Your task to perform on an android device: change the clock style Image 0: 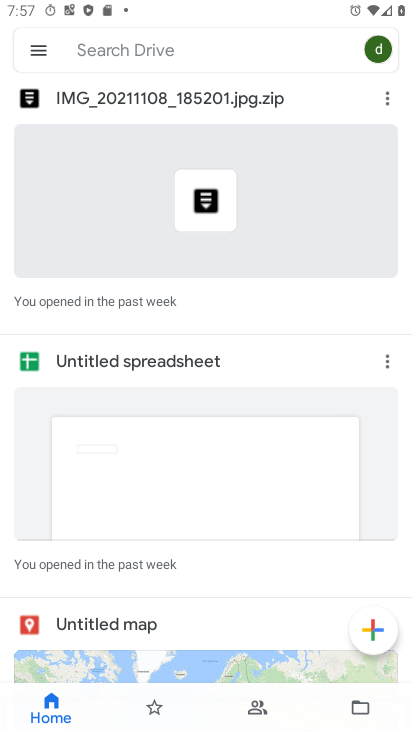
Step 0: press home button
Your task to perform on an android device: change the clock style Image 1: 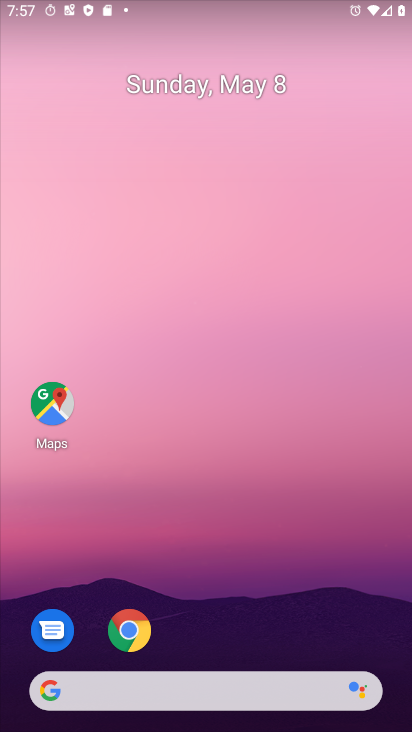
Step 1: drag from (231, 664) to (349, 10)
Your task to perform on an android device: change the clock style Image 2: 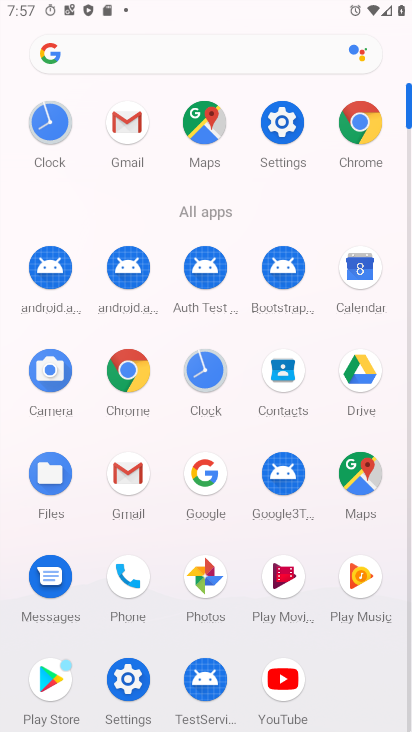
Step 2: click (195, 380)
Your task to perform on an android device: change the clock style Image 3: 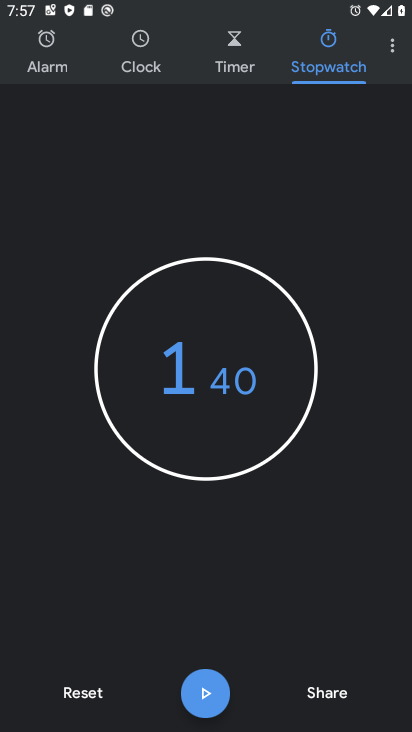
Step 3: click (391, 56)
Your task to perform on an android device: change the clock style Image 4: 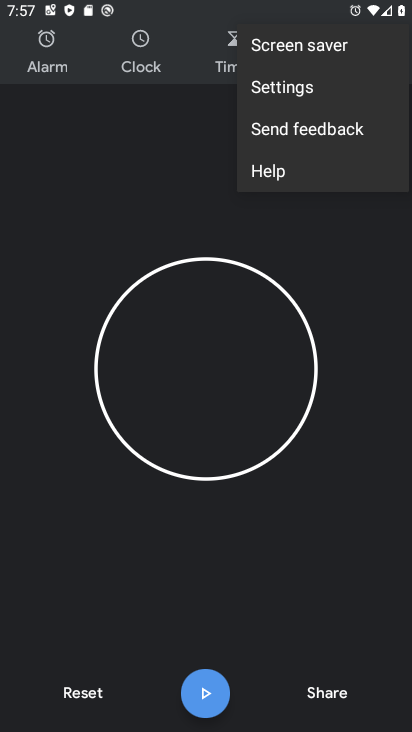
Step 4: click (282, 90)
Your task to perform on an android device: change the clock style Image 5: 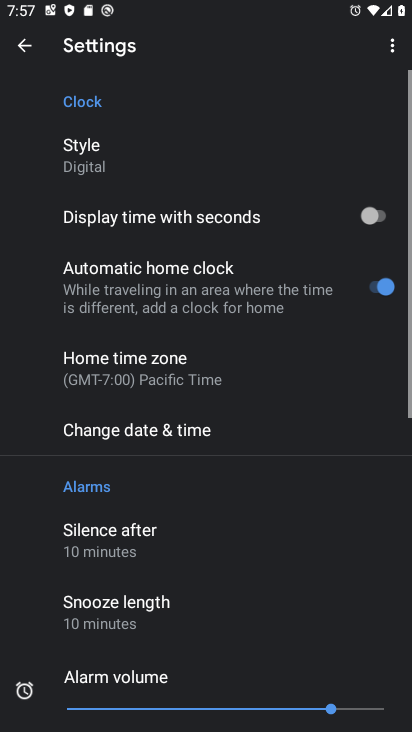
Step 5: click (89, 153)
Your task to perform on an android device: change the clock style Image 6: 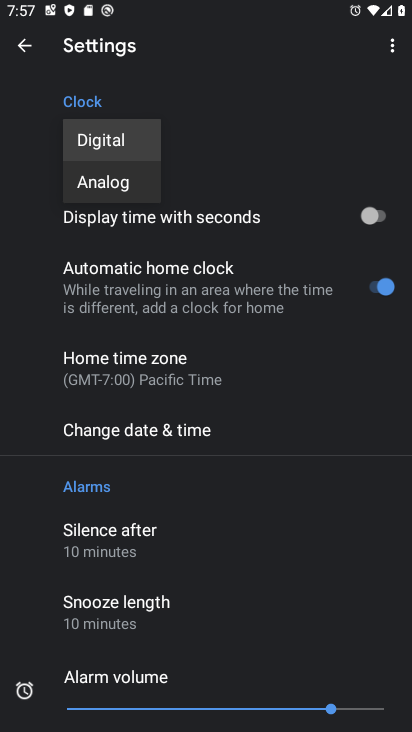
Step 6: click (109, 184)
Your task to perform on an android device: change the clock style Image 7: 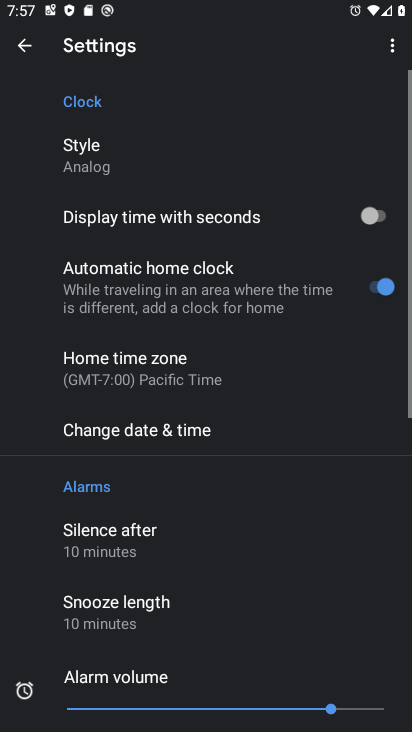
Step 7: task complete